Your task to perform on an android device: change alarm snooze length Image 0: 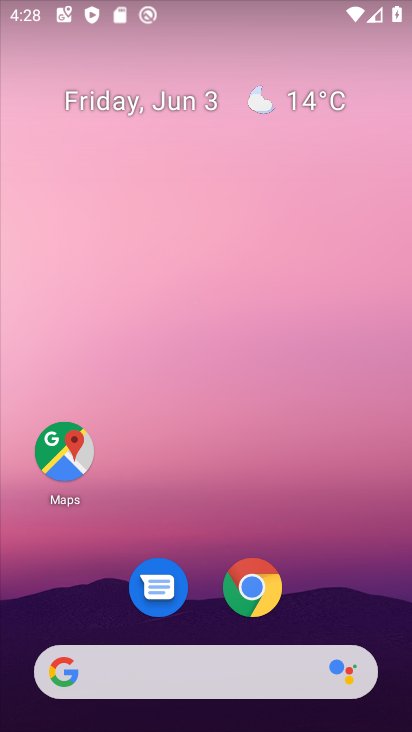
Step 0: drag from (173, 652) to (173, 221)
Your task to perform on an android device: change alarm snooze length Image 1: 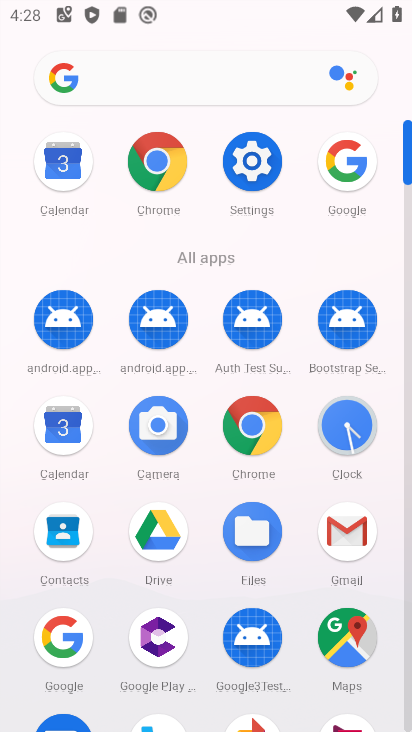
Step 1: click (352, 427)
Your task to perform on an android device: change alarm snooze length Image 2: 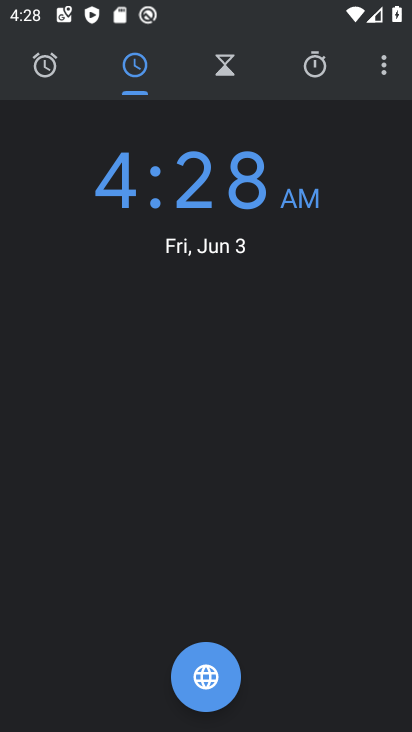
Step 2: click (392, 64)
Your task to perform on an android device: change alarm snooze length Image 3: 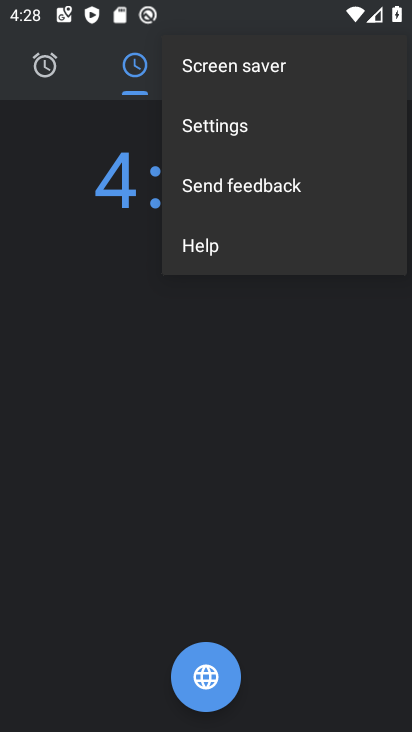
Step 3: click (215, 125)
Your task to perform on an android device: change alarm snooze length Image 4: 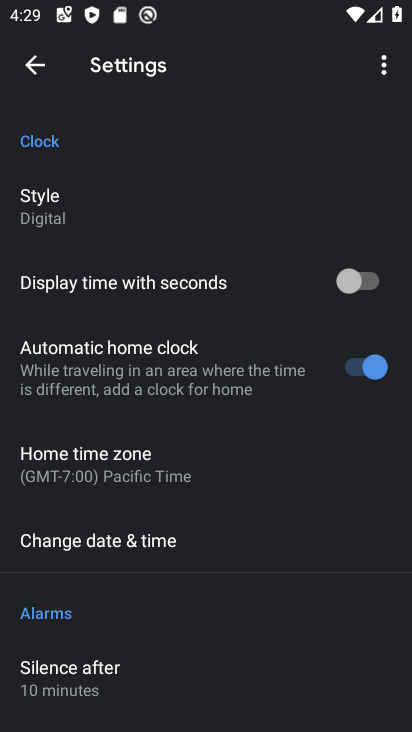
Step 4: drag from (210, 685) to (239, 292)
Your task to perform on an android device: change alarm snooze length Image 5: 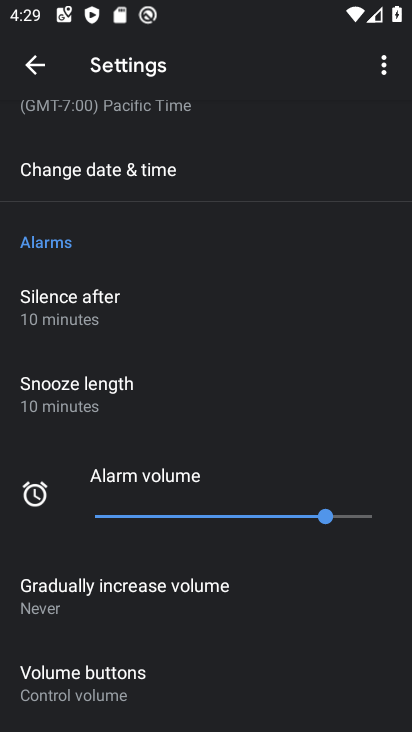
Step 5: drag from (220, 660) to (211, 282)
Your task to perform on an android device: change alarm snooze length Image 6: 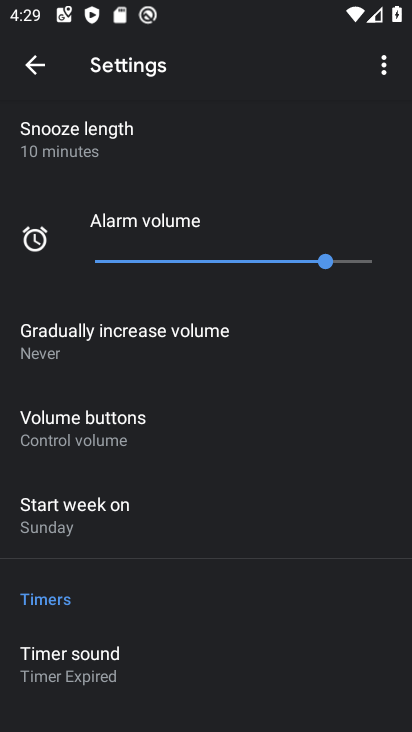
Step 6: drag from (157, 653) to (134, 427)
Your task to perform on an android device: change alarm snooze length Image 7: 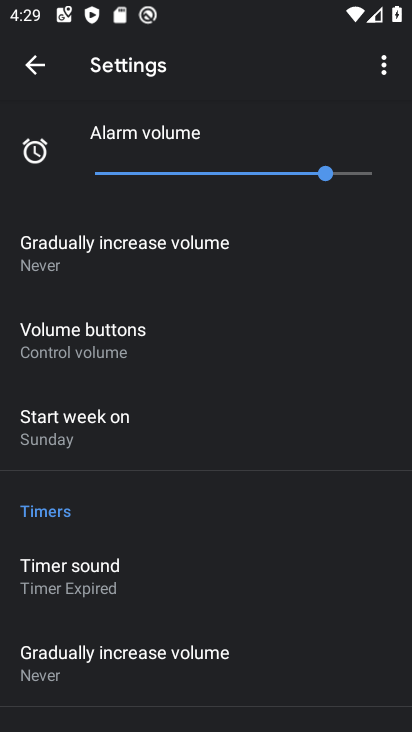
Step 7: drag from (124, 677) to (104, 391)
Your task to perform on an android device: change alarm snooze length Image 8: 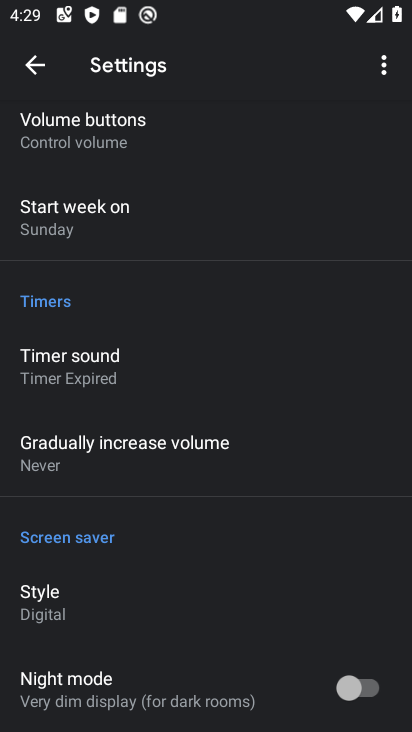
Step 8: drag from (140, 679) to (113, 327)
Your task to perform on an android device: change alarm snooze length Image 9: 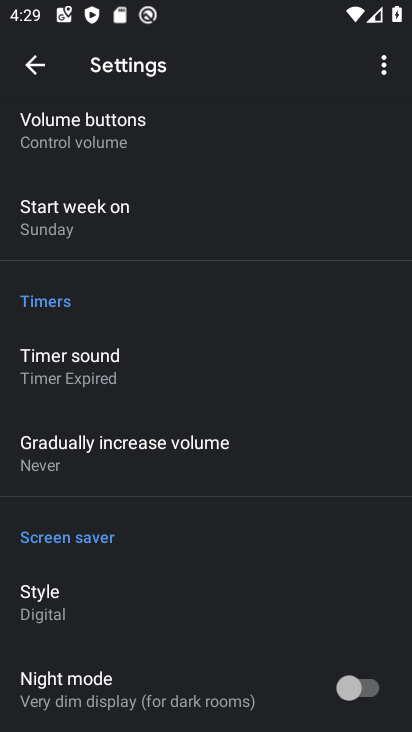
Step 9: drag from (135, 142) to (172, 551)
Your task to perform on an android device: change alarm snooze length Image 10: 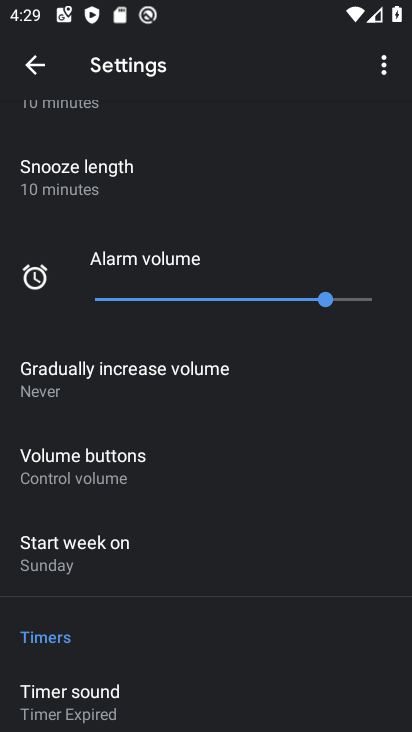
Step 10: drag from (101, 222) to (141, 484)
Your task to perform on an android device: change alarm snooze length Image 11: 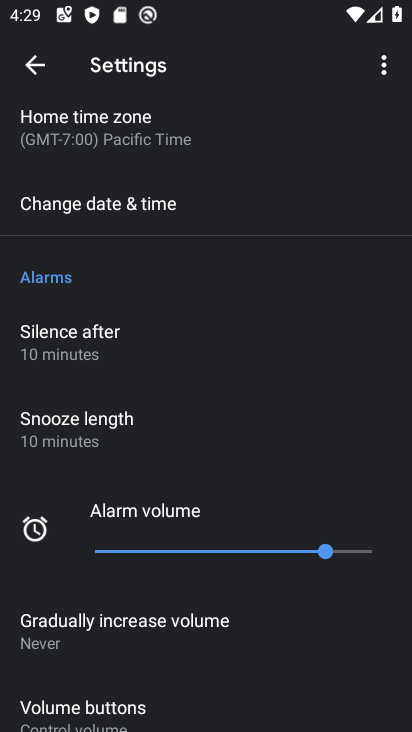
Step 11: click (74, 430)
Your task to perform on an android device: change alarm snooze length Image 12: 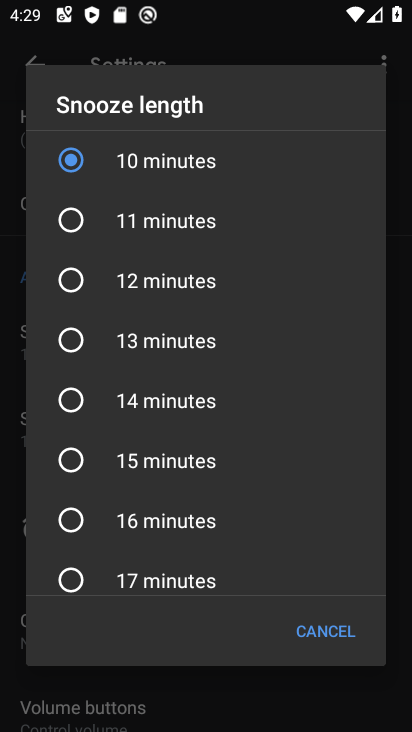
Step 12: click (151, 230)
Your task to perform on an android device: change alarm snooze length Image 13: 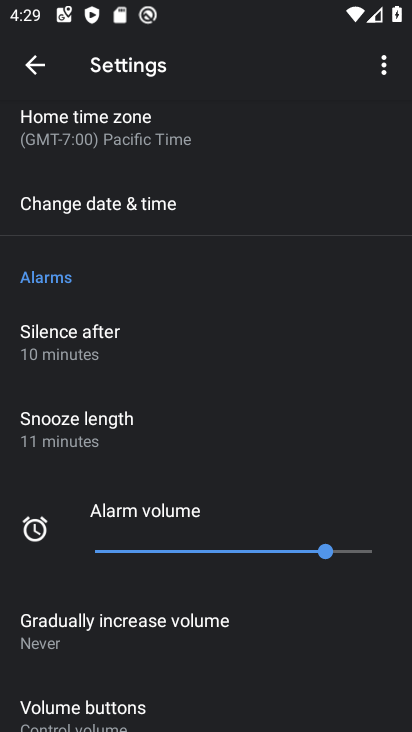
Step 13: task complete